Your task to perform on an android device: Go to Yahoo.com Image 0: 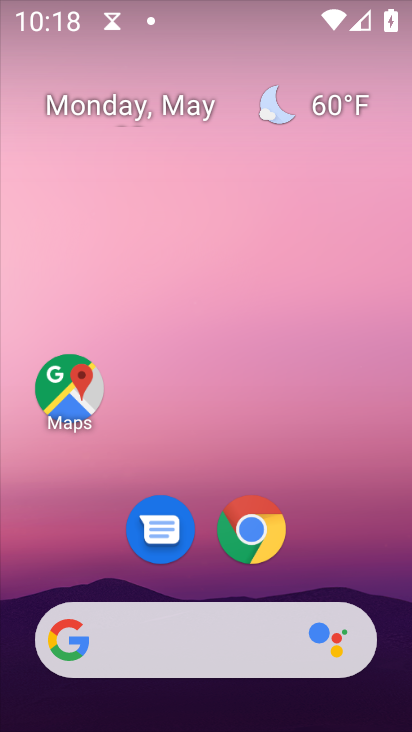
Step 0: click (251, 531)
Your task to perform on an android device: Go to Yahoo.com Image 1: 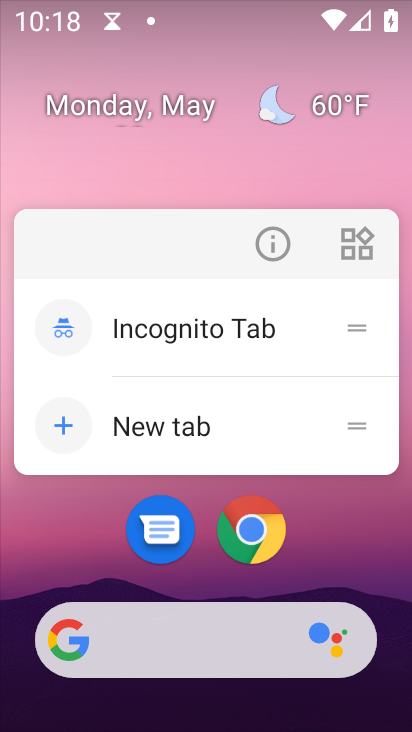
Step 1: click (251, 550)
Your task to perform on an android device: Go to Yahoo.com Image 2: 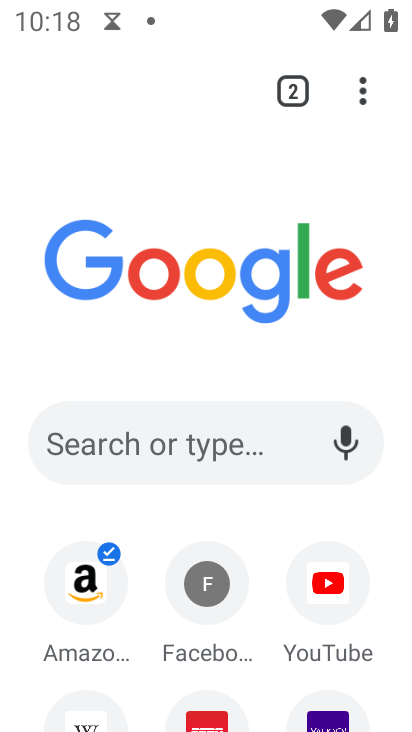
Step 2: click (325, 713)
Your task to perform on an android device: Go to Yahoo.com Image 3: 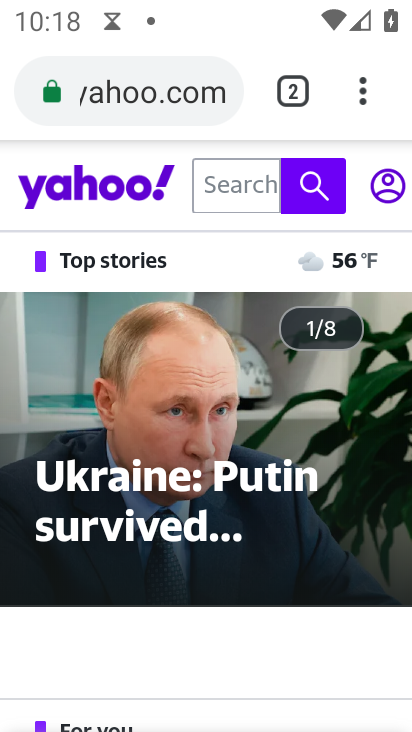
Step 3: task complete